Your task to perform on an android device: open app "VLC for Android" Image 0: 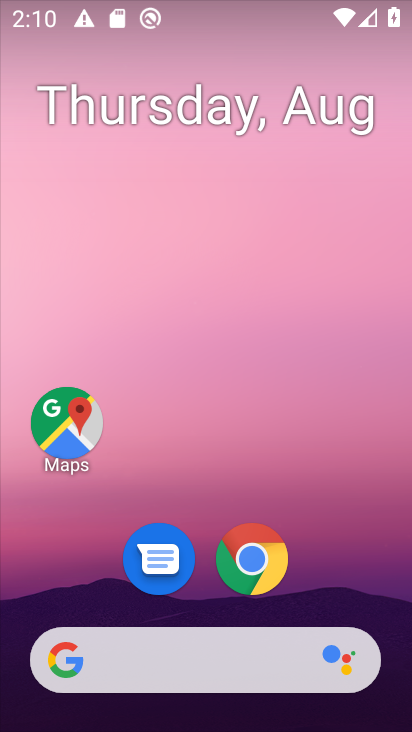
Step 0: drag from (85, 587) to (172, 77)
Your task to perform on an android device: open app "VLC for Android" Image 1: 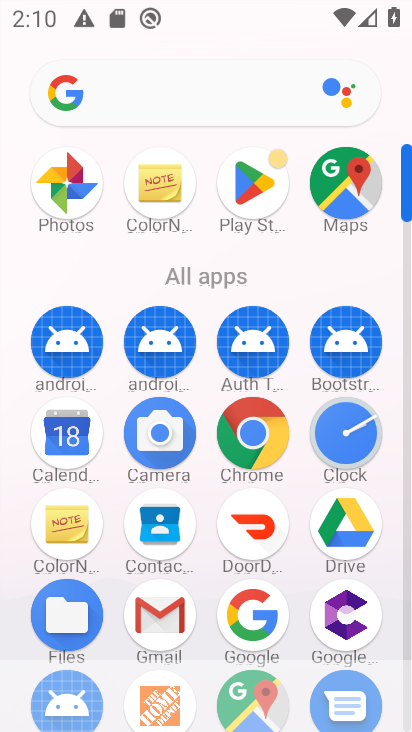
Step 1: click (249, 186)
Your task to perform on an android device: open app "VLC for Android" Image 2: 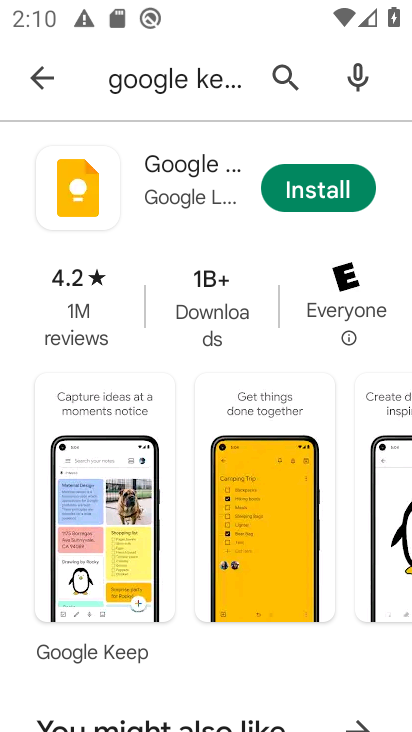
Step 2: click (285, 75)
Your task to perform on an android device: open app "VLC for Android" Image 3: 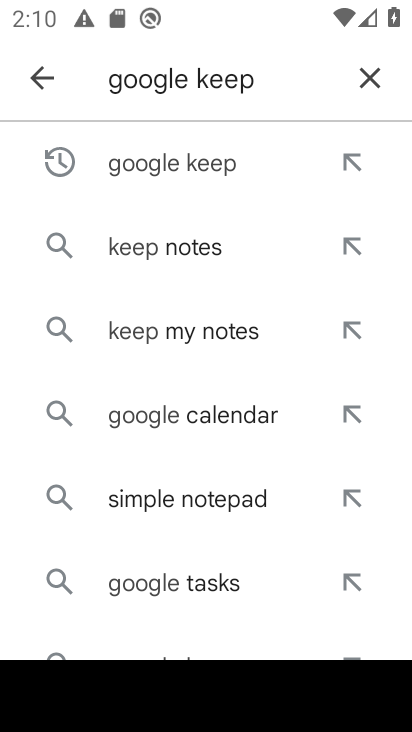
Step 3: click (366, 72)
Your task to perform on an android device: open app "VLC for Android" Image 4: 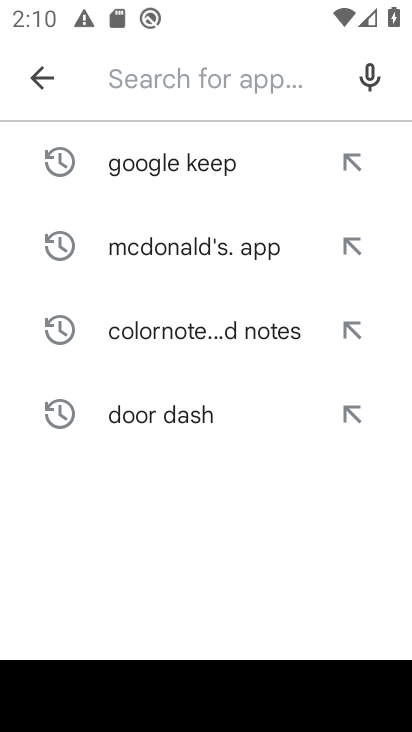
Step 4: click (184, 77)
Your task to perform on an android device: open app "VLC for Android" Image 5: 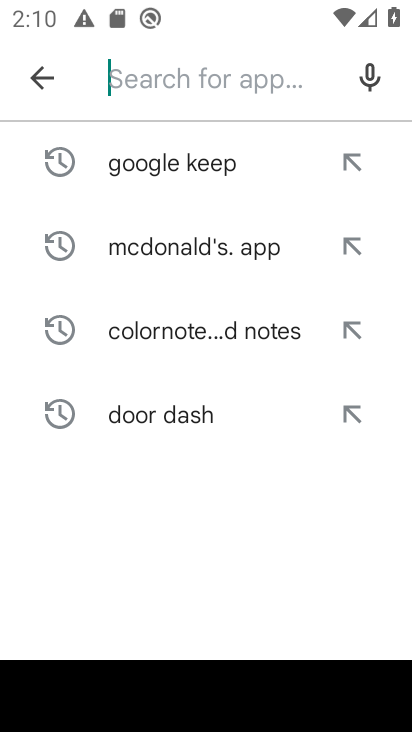
Step 5: type "vlc"
Your task to perform on an android device: open app "VLC for Android" Image 6: 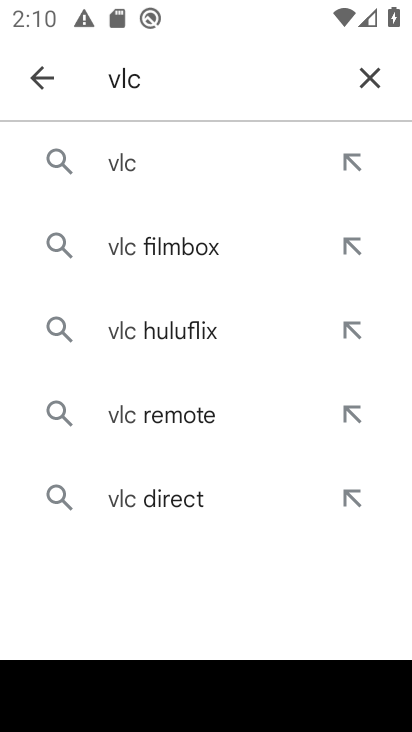
Step 6: click (128, 166)
Your task to perform on an android device: open app "VLC for Android" Image 7: 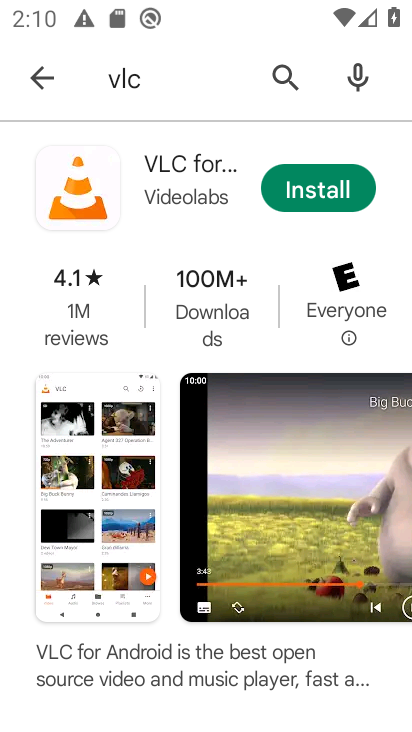
Step 7: task complete